Your task to perform on an android device: Show me popular games on the Play Store Image 0: 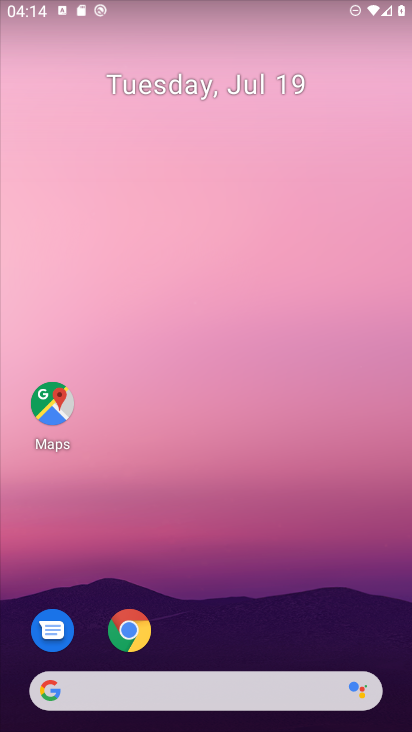
Step 0: drag from (370, 598) to (347, 123)
Your task to perform on an android device: Show me popular games on the Play Store Image 1: 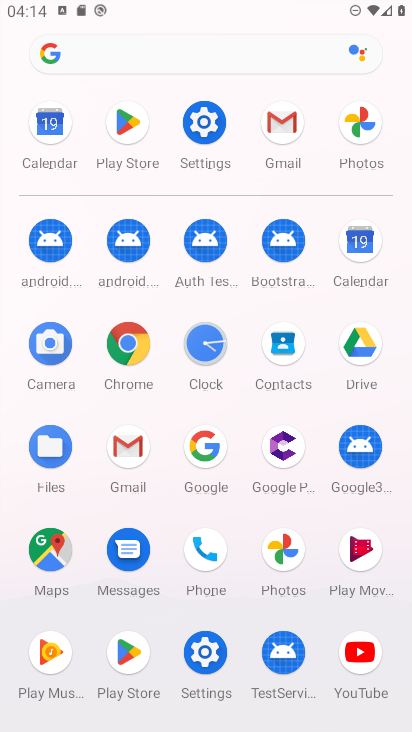
Step 1: click (127, 651)
Your task to perform on an android device: Show me popular games on the Play Store Image 2: 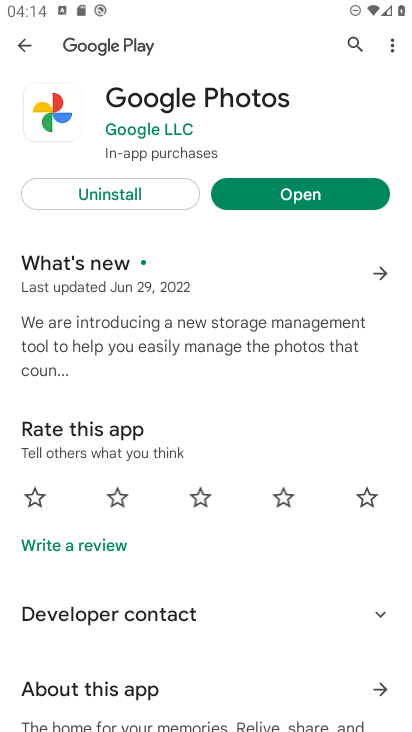
Step 2: press back button
Your task to perform on an android device: Show me popular games on the Play Store Image 3: 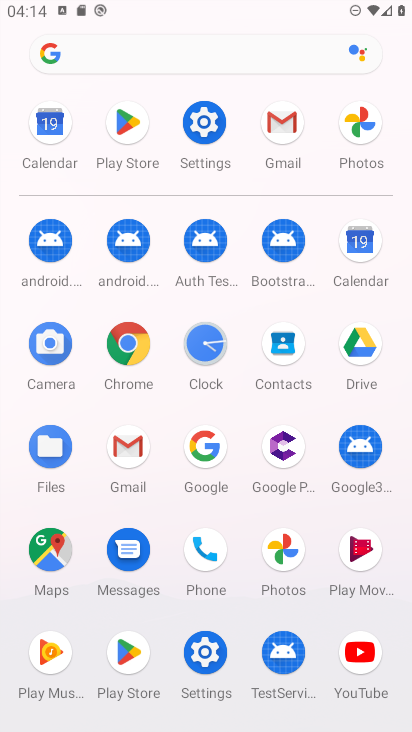
Step 3: click (135, 644)
Your task to perform on an android device: Show me popular games on the Play Store Image 4: 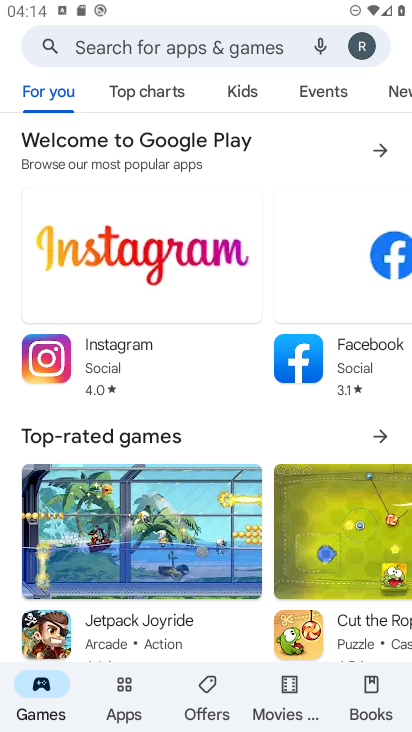
Step 4: drag from (271, 453) to (267, 98)
Your task to perform on an android device: Show me popular games on the Play Store Image 5: 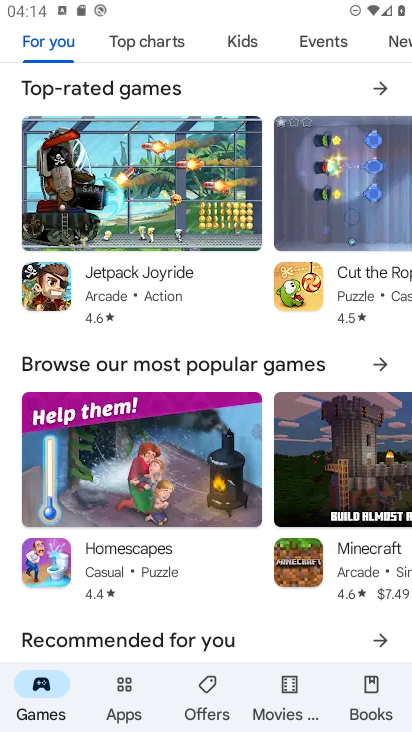
Step 5: click (378, 360)
Your task to perform on an android device: Show me popular games on the Play Store Image 6: 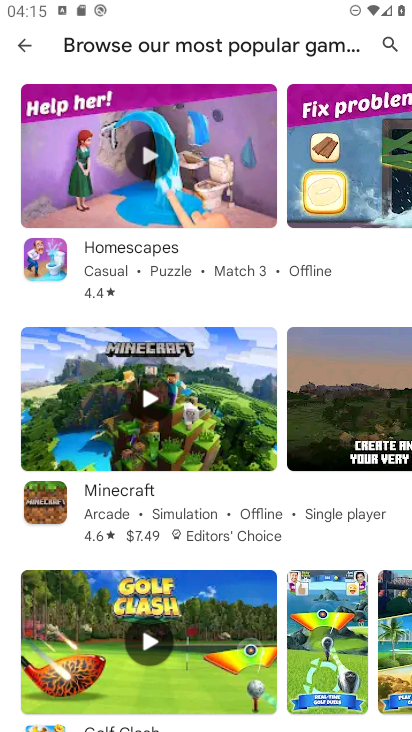
Step 6: task complete